Your task to perform on an android device: Open the phone app and click the voicemail tab. Image 0: 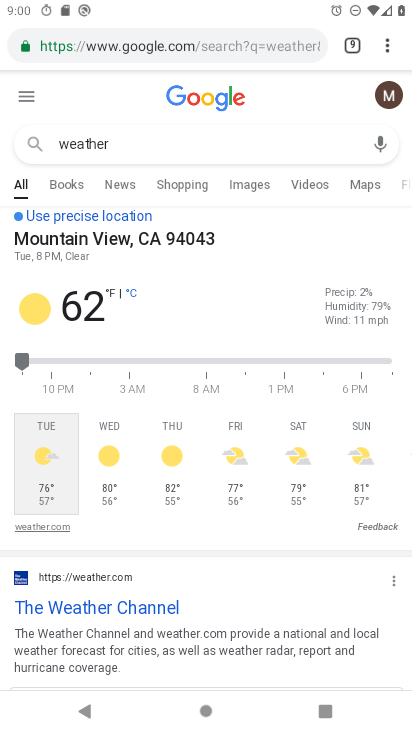
Step 0: press home button
Your task to perform on an android device: Open the phone app and click the voicemail tab. Image 1: 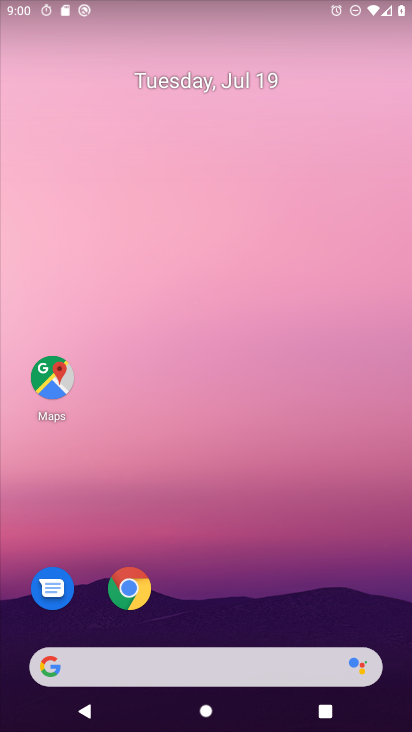
Step 1: drag from (277, 501) to (261, 111)
Your task to perform on an android device: Open the phone app and click the voicemail tab. Image 2: 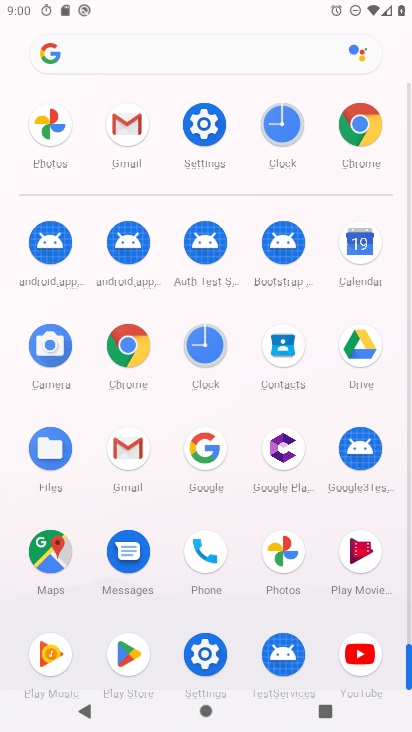
Step 2: click (207, 557)
Your task to perform on an android device: Open the phone app and click the voicemail tab. Image 3: 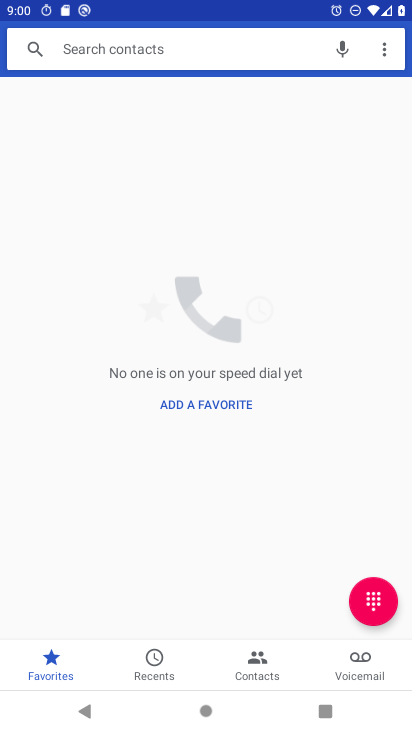
Step 3: click (381, 664)
Your task to perform on an android device: Open the phone app and click the voicemail tab. Image 4: 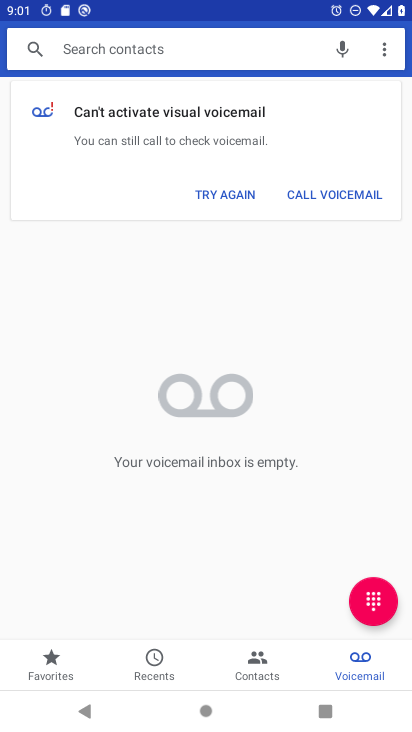
Step 4: task complete